Your task to perform on an android device: What is the news today? Image 0: 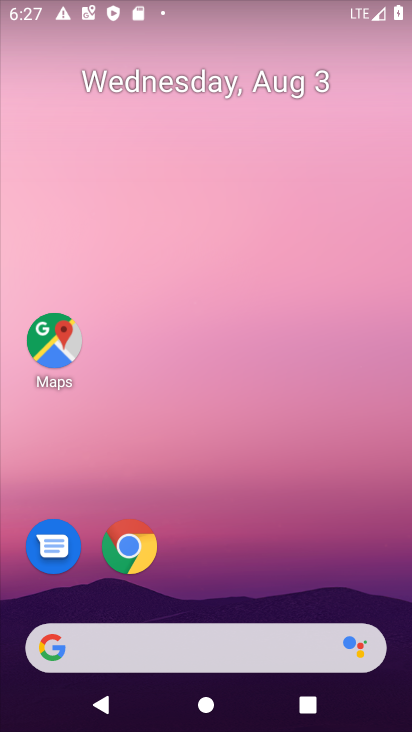
Step 0: press home button
Your task to perform on an android device: What is the news today? Image 1: 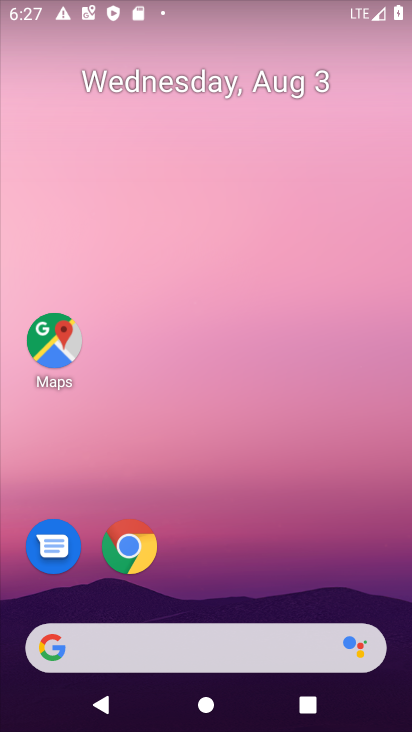
Step 1: click (53, 647)
Your task to perform on an android device: What is the news today? Image 2: 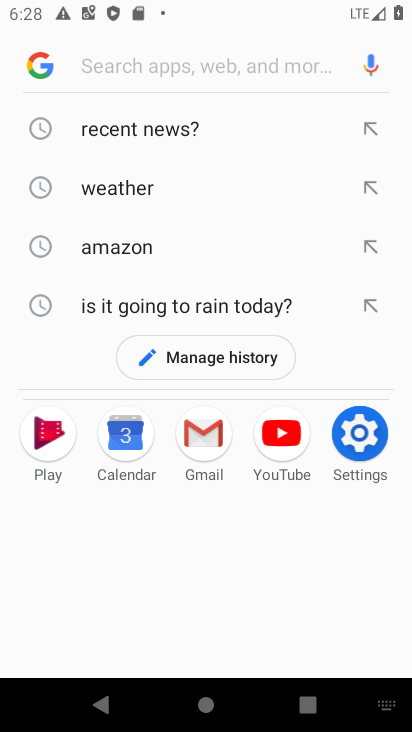
Step 2: type " news today?"
Your task to perform on an android device: What is the news today? Image 3: 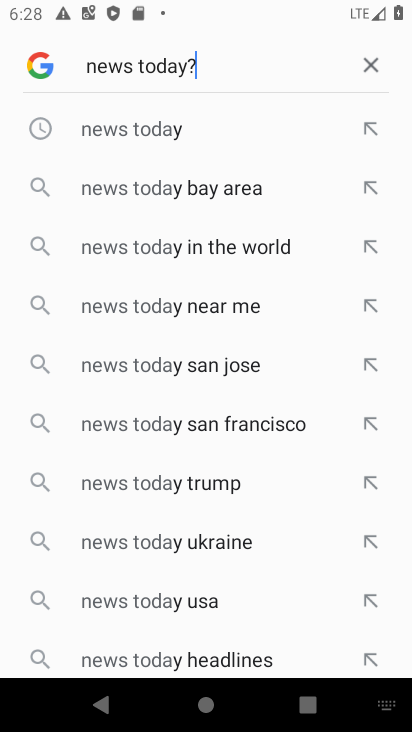
Step 3: press enter
Your task to perform on an android device: What is the news today? Image 4: 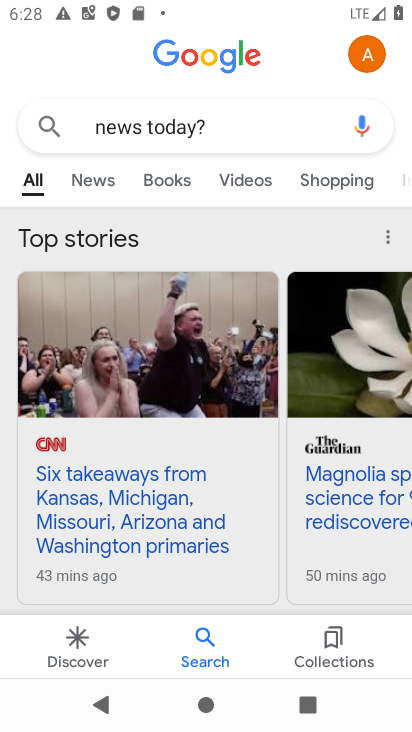
Step 4: task complete